Your task to perform on an android device: turn smart compose on in the gmail app Image 0: 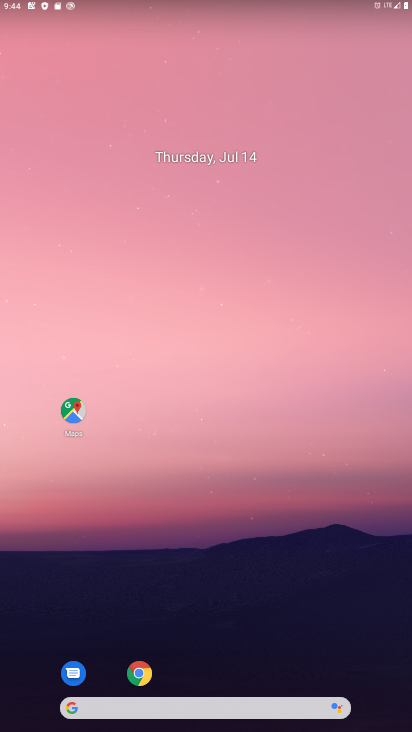
Step 0: drag from (208, 714) to (287, 252)
Your task to perform on an android device: turn smart compose on in the gmail app Image 1: 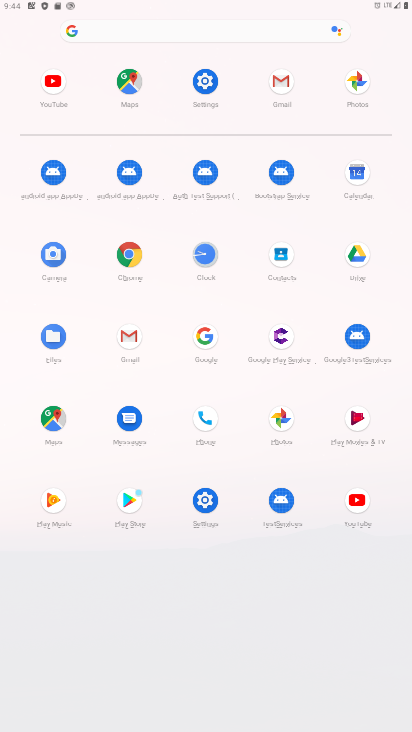
Step 1: click (279, 80)
Your task to perform on an android device: turn smart compose on in the gmail app Image 2: 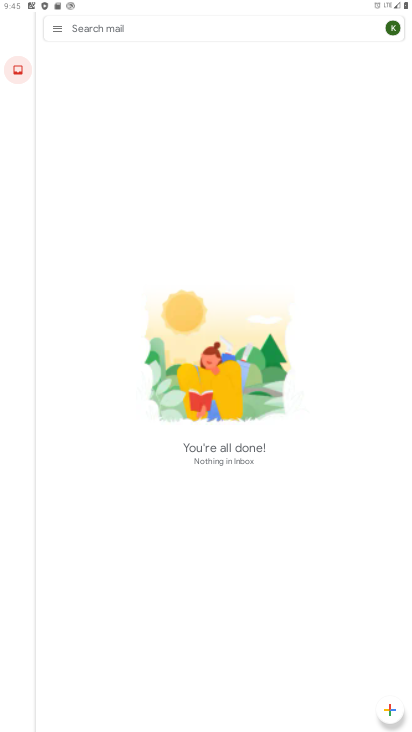
Step 2: click (58, 30)
Your task to perform on an android device: turn smart compose on in the gmail app Image 3: 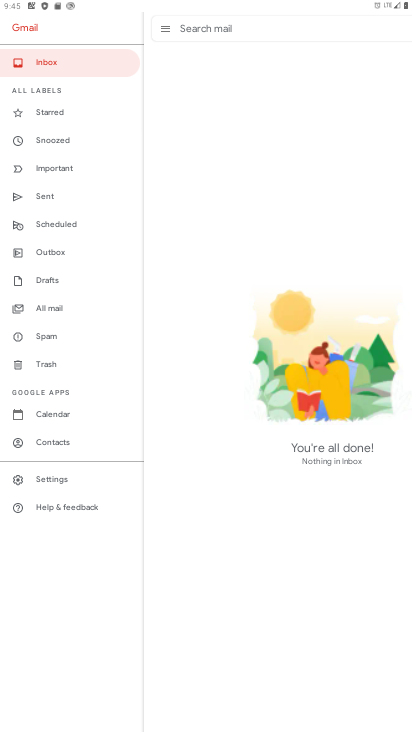
Step 3: click (60, 477)
Your task to perform on an android device: turn smart compose on in the gmail app Image 4: 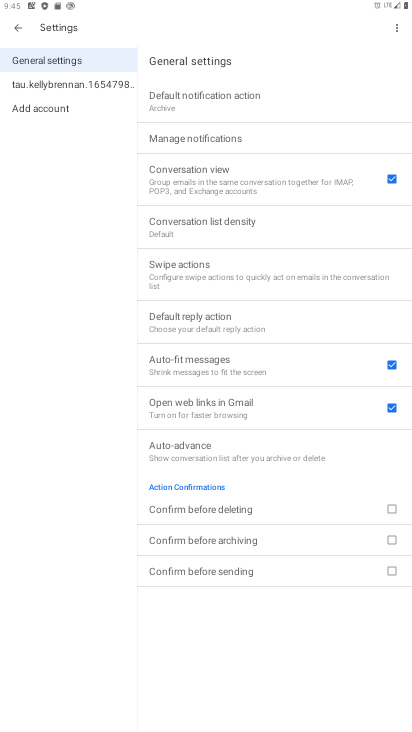
Step 4: click (76, 84)
Your task to perform on an android device: turn smart compose on in the gmail app Image 5: 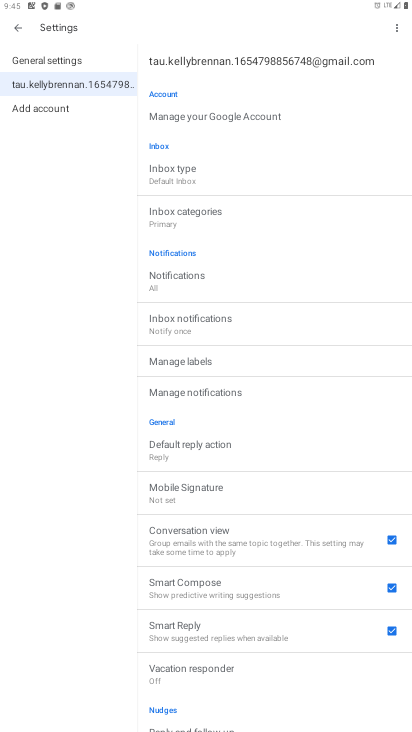
Step 5: task complete